Your task to perform on an android device: Open calendar and show me the second week of next month Image 0: 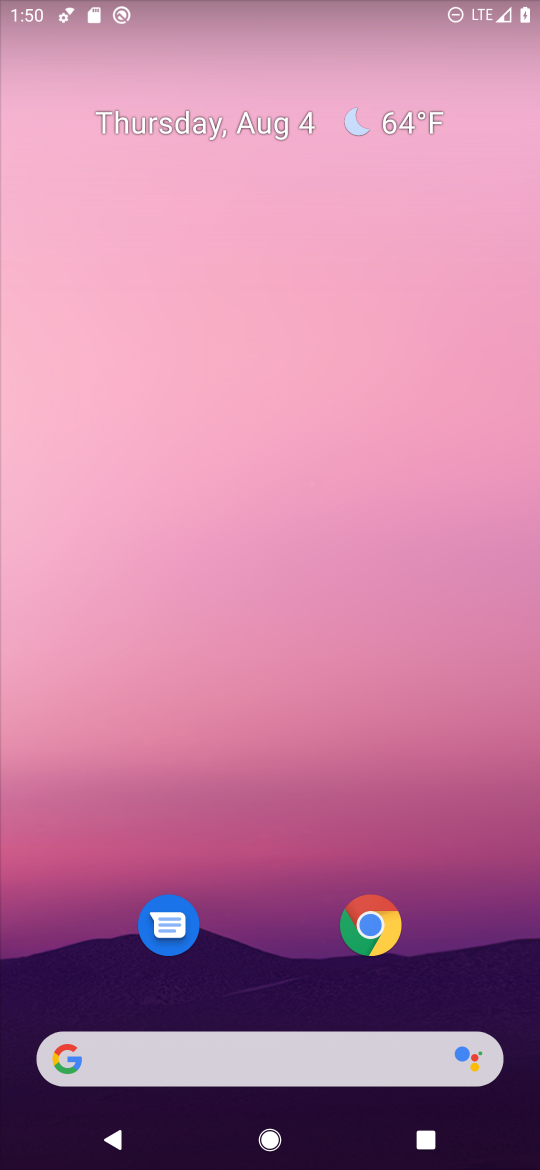
Step 0: drag from (242, 1001) to (275, 243)
Your task to perform on an android device: Open calendar and show me the second week of next month Image 1: 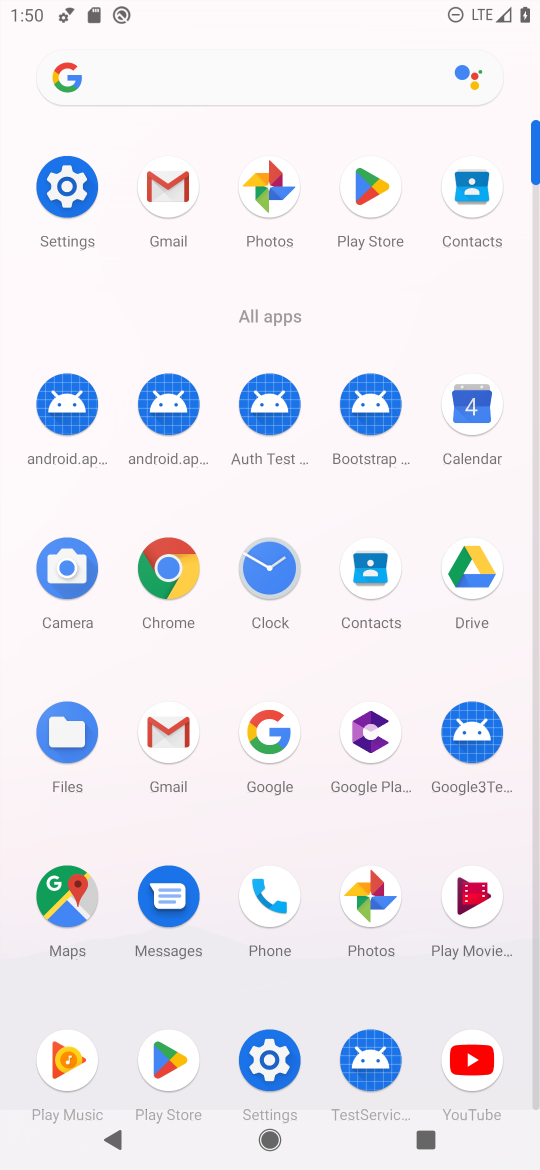
Step 1: click (470, 425)
Your task to perform on an android device: Open calendar and show me the second week of next month Image 2: 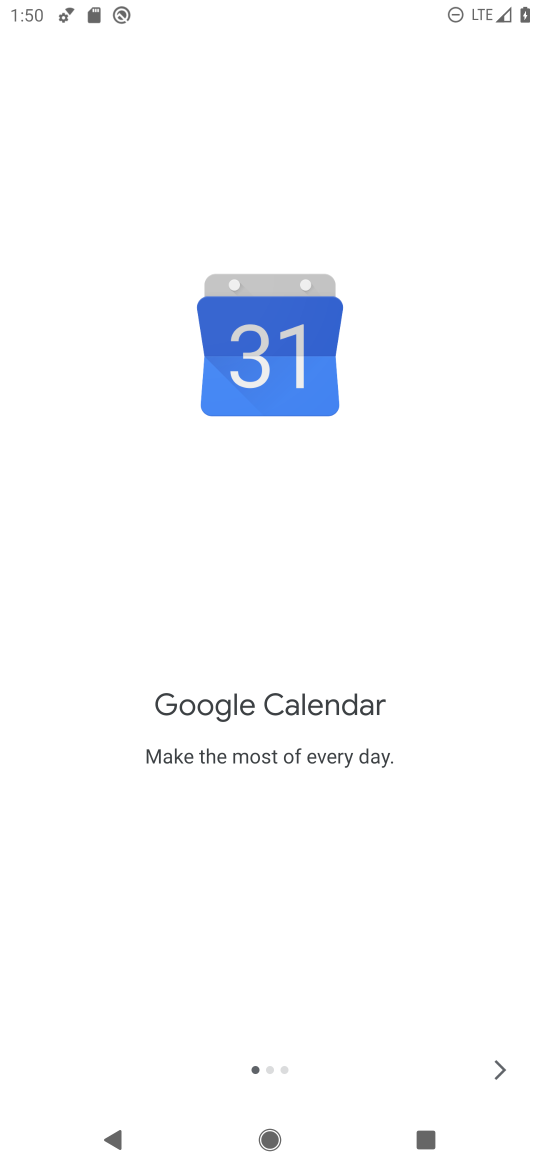
Step 2: click (499, 1080)
Your task to perform on an android device: Open calendar and show me the second week of next month Image 3: 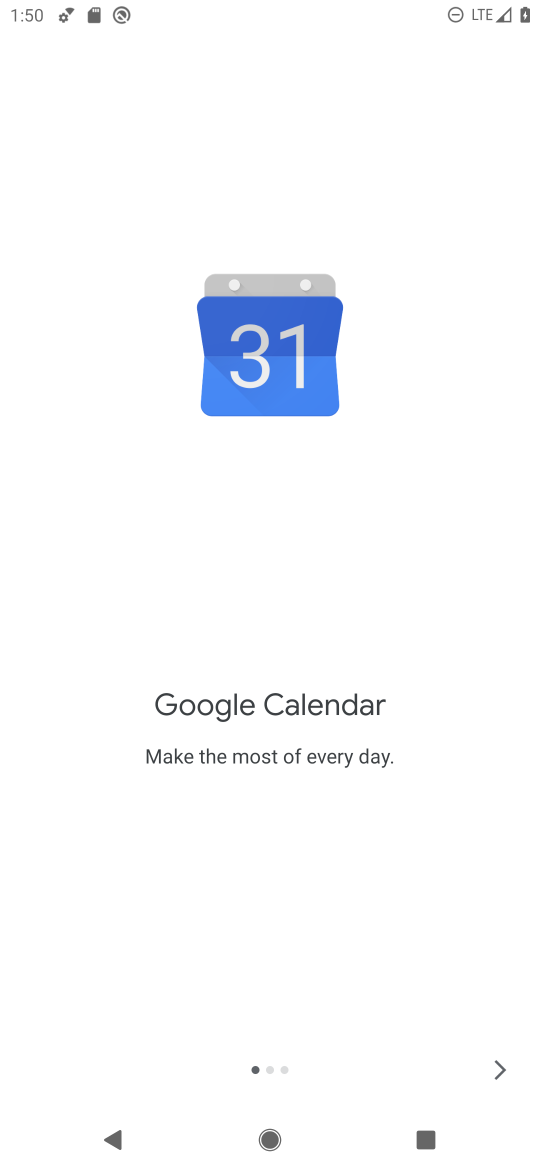
Step 3: click (499, 1080)
Your task to perform on an android device: Open calendar and show me the second week of next month Image 4: 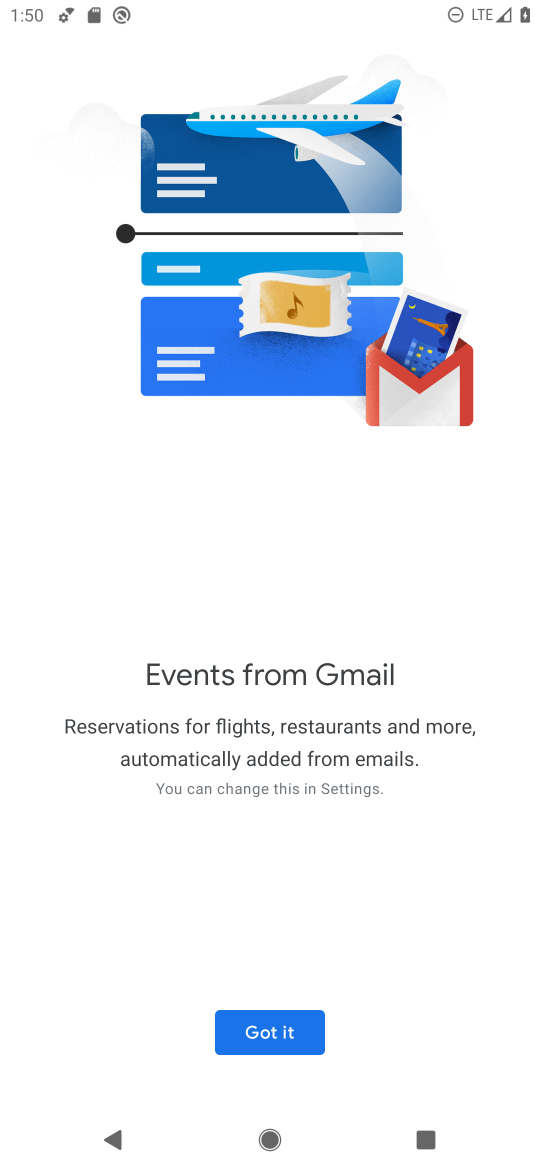
Step 4: click (499, 1080)
Your task to perform on an android device: Open calendar and show me the second week of next month Image 5: 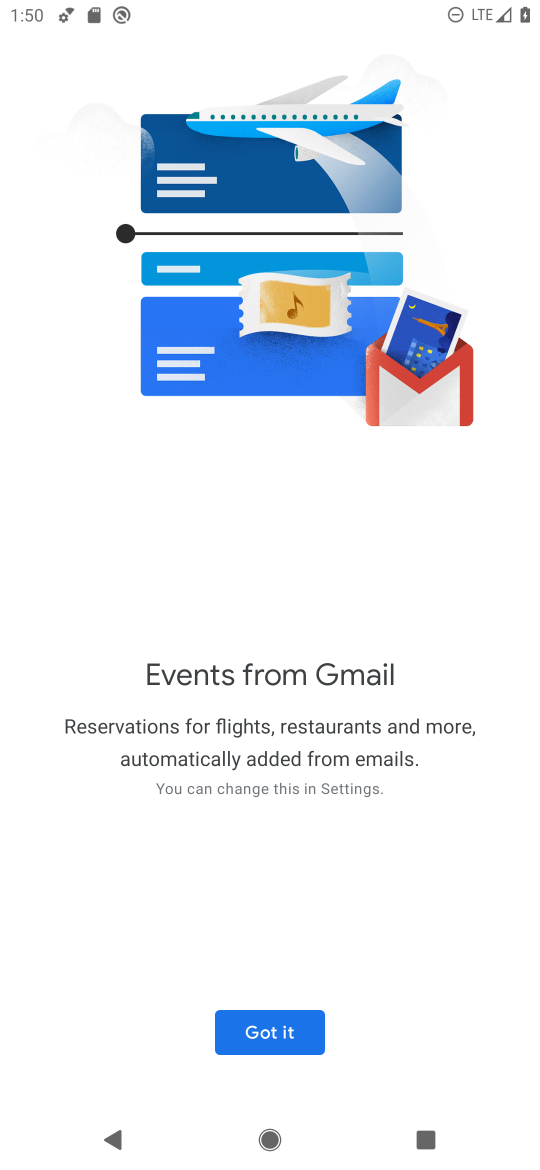
Step 5: click (499, 1080)
Your task to perform on an android device: Open calendar and show me the second week of next month Image 6: 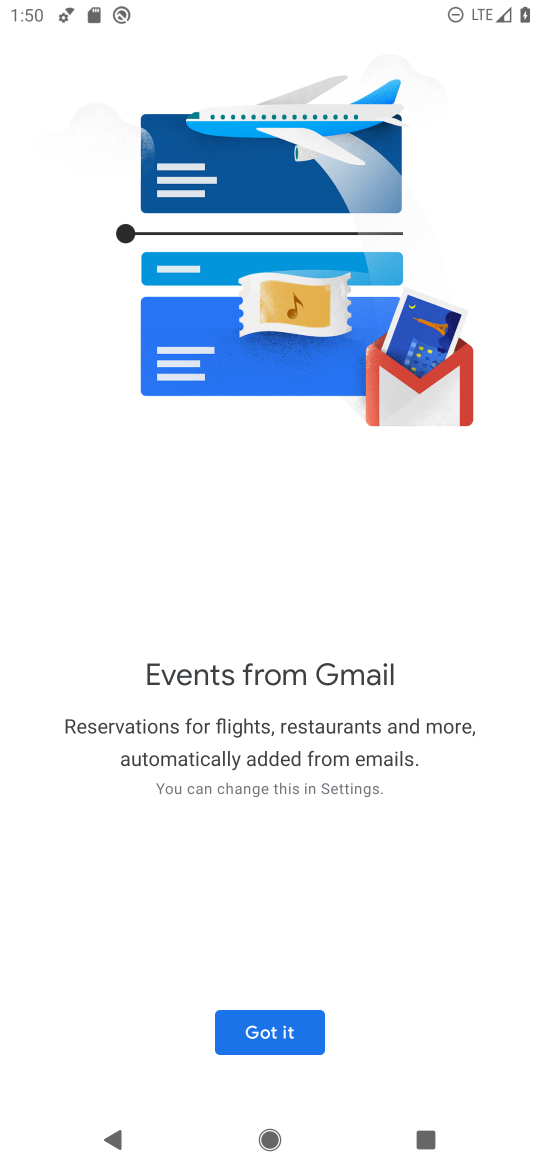
Step 6: click (300, 1039)
Your task to perform on an android device: Open calendar and show me the second week of next month Image 7: 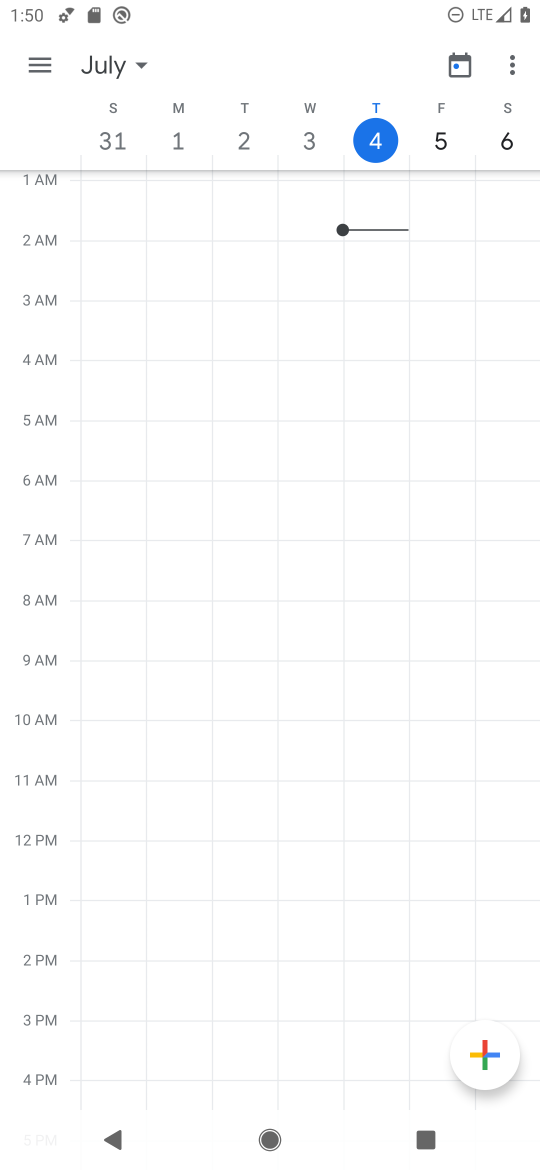
Step 7: click (137, 65)
Your task to perform on an android device: Open calendar and show me the second week of next month Image 8: 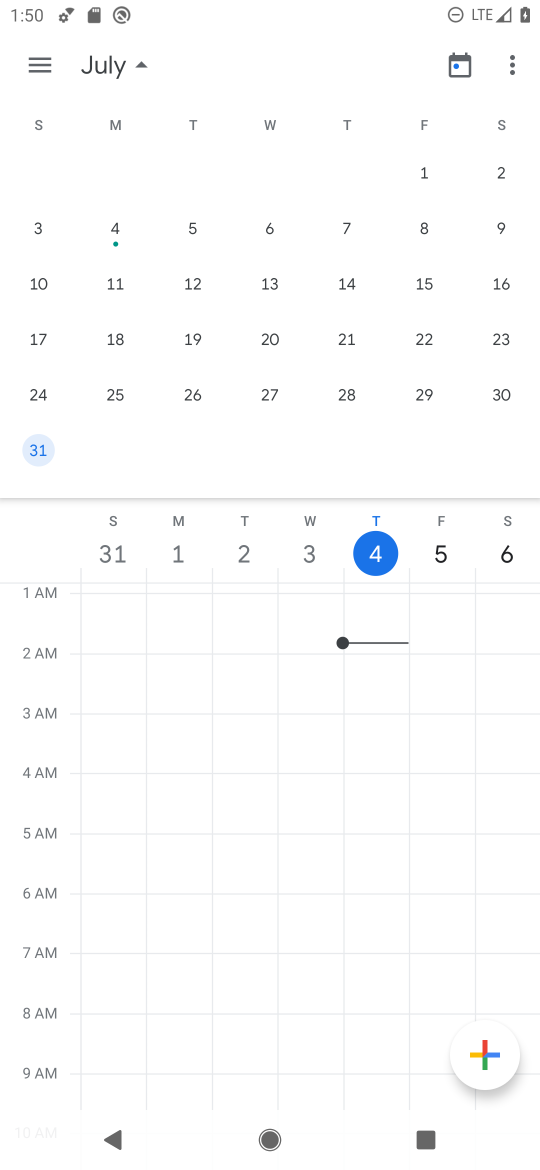
Step 8: click (459, 68)
Your task to perform on an android device: Open calendar and show me the second week of next month Image 9: 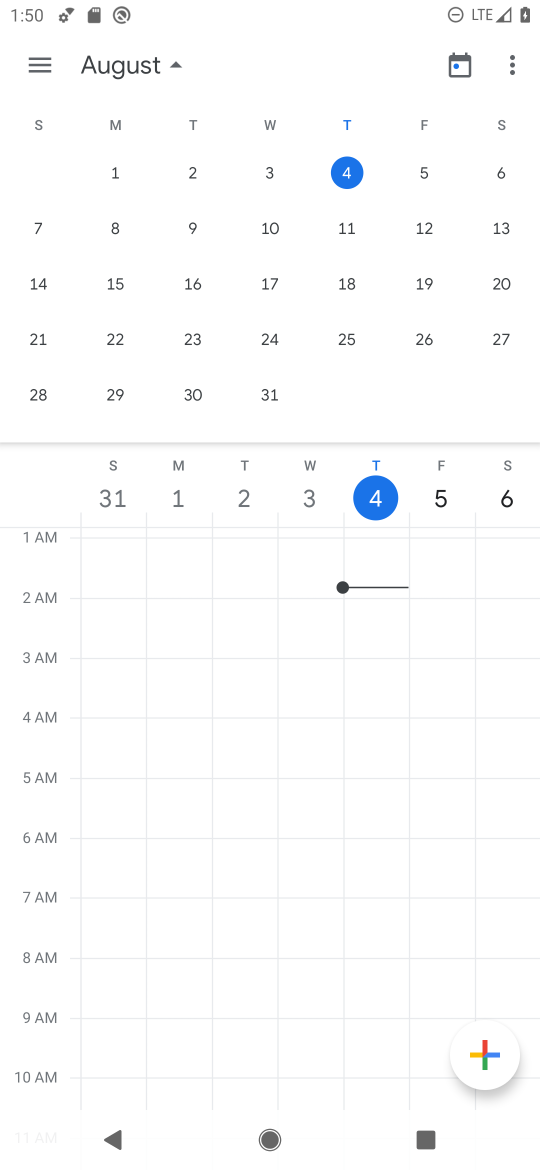
Step 9: click (459, 68)
Your task to perform on an android device: Open calendar and show me the second week of next month Image 10: 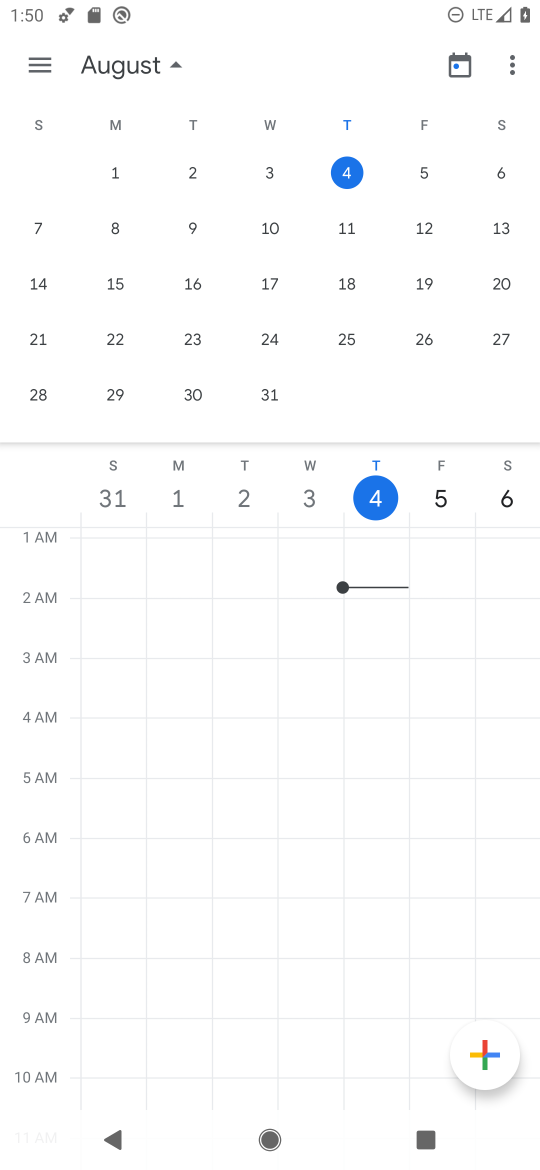
Step 10: click (459, 68)
Your task to perform on an android device: Open calendar and show me the second week of next month Image 11: 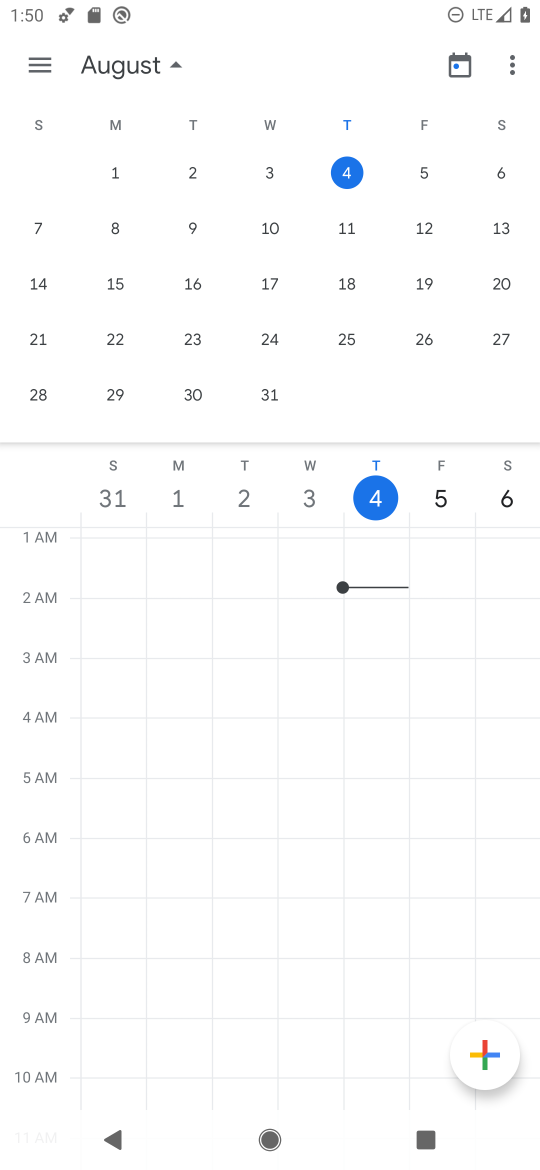
Step 11: click (46, 68)
Your task to perform on an android device: Open calendar and show me the second week of next month Image 12: 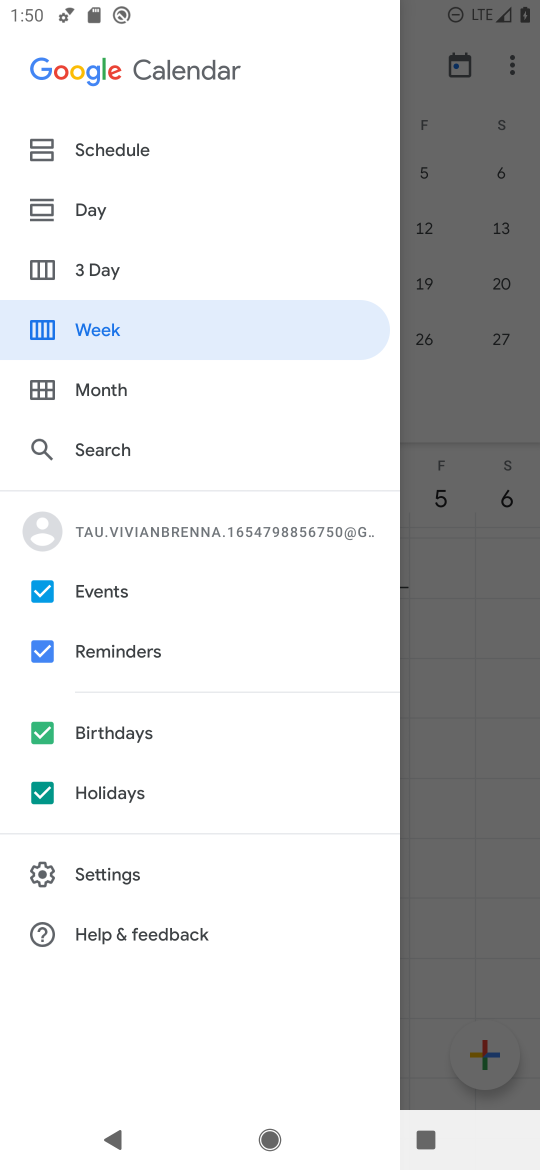
Step 12: click (103, 335)
Your task to perform on an android device: Open calendar and show me the second week of next month Image 13: 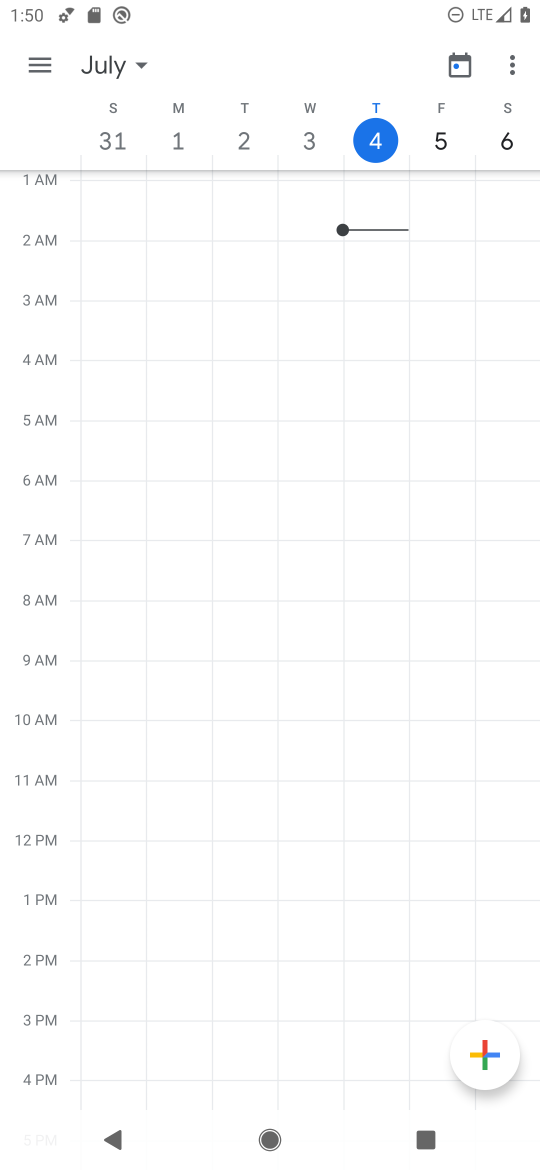
Step 13: click (141, 65)
Your task to perform on an android device: Open calendar and show me the second week of next month Image 14: 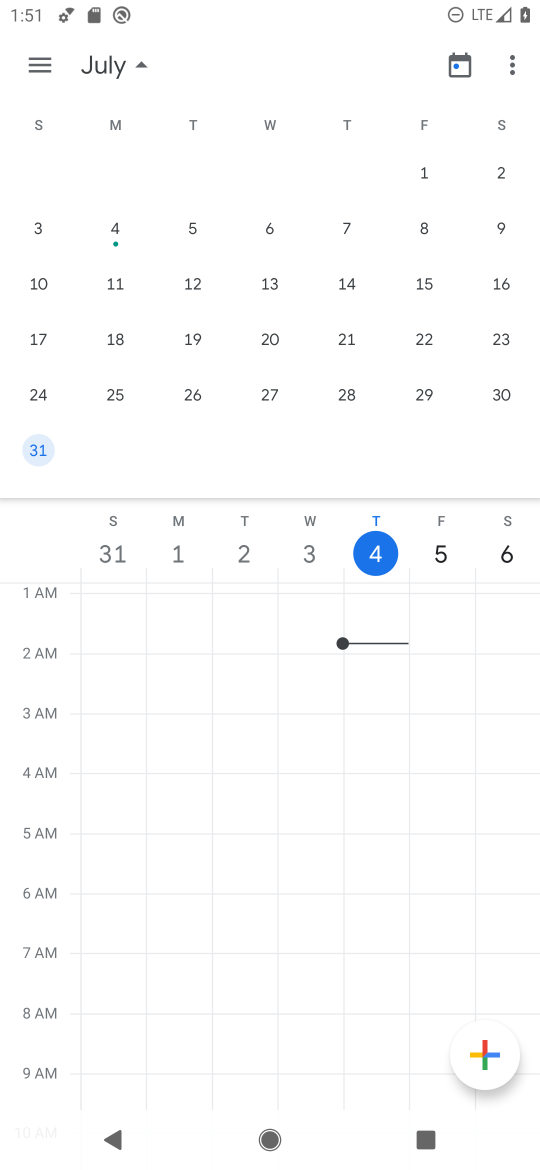
Step 14: task complete